Your task to perform on an android device: turn off wifi Image 0: 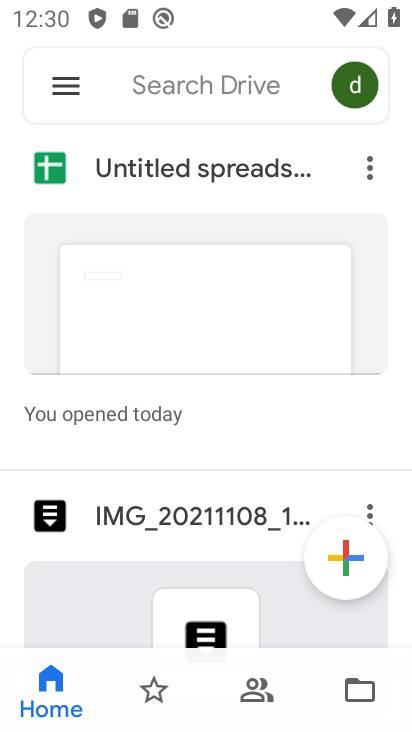
Step 0: press home button
Your task to perform on an android device: turn off wifi Image 1: 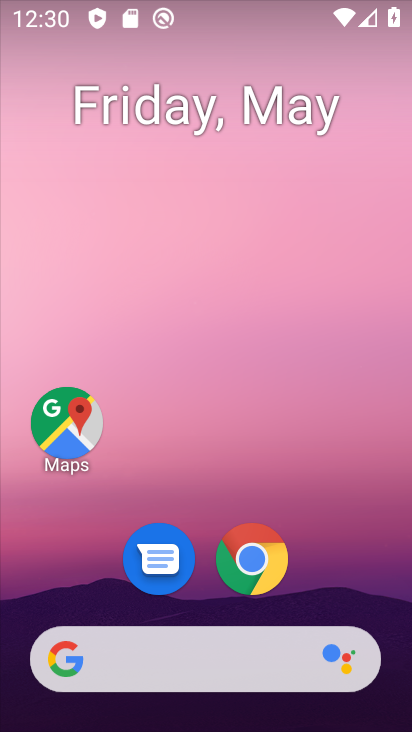
Step 1: drag from (303, 491) to (281, 74)
Your task to perform on an android device: turn off wifi Image 2: 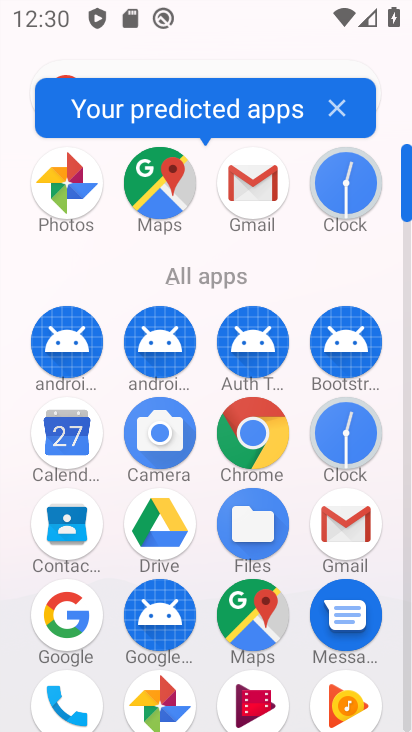
Step 2: drag from (309, 564) to (368, 161)
Your task to perform on an android device: turn off wifi Image 3: 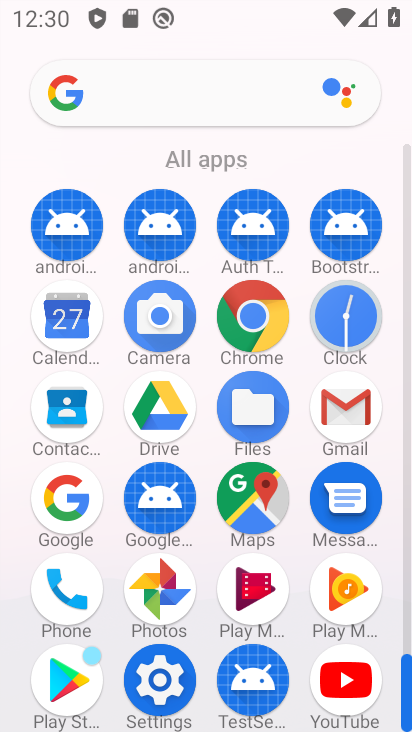
Step 3: click (160, 664)
Your task to perform on an android device: turn off wifi Image 4: 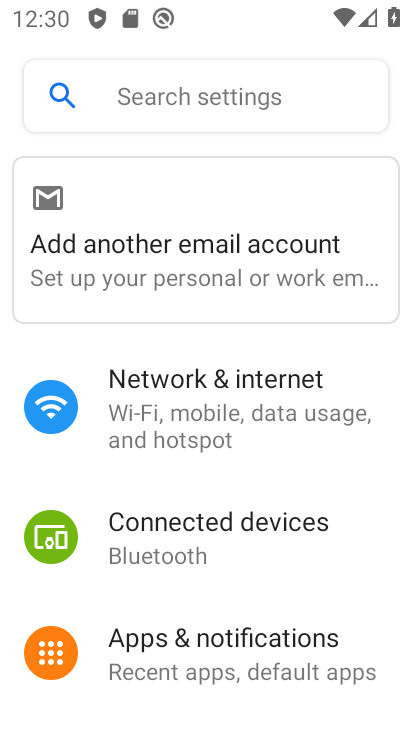
Step 4: click (109, 415)
Your task to perform on an android device: turn off wifi Image 5: 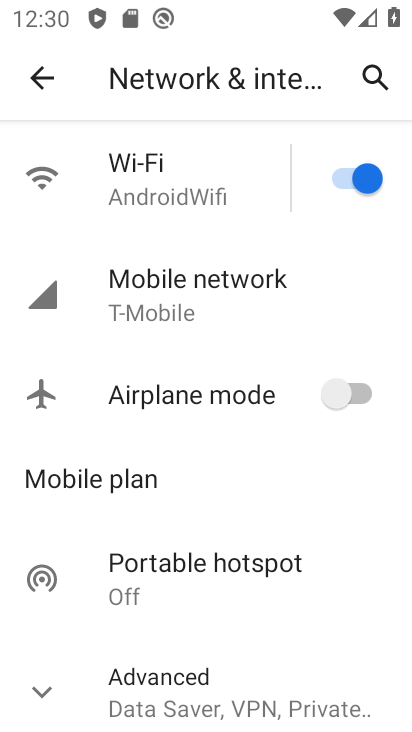
Step 5: click (369, 181)
Your task to perform on an android device: turn off wifi Image 6: 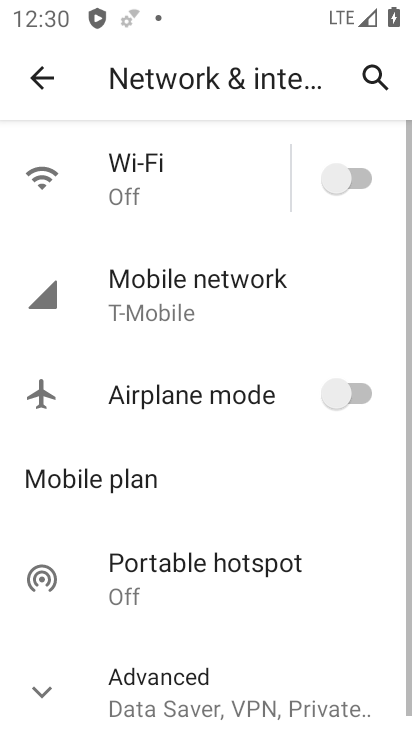
Step 6: task complete